Your task to perform on an android device: add a contact in the contacts app Image 0: 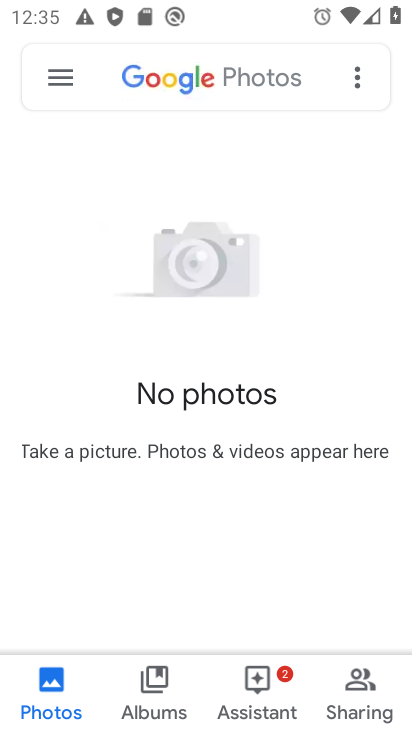
Step 0: press home button
Your task to perform on an android device: add a contact in the contacts app Image 1: 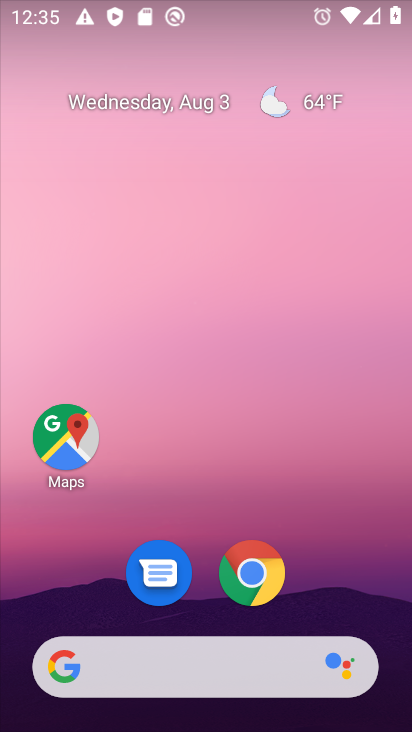
Step 1: drag from (216, 621) to (241, 183)
Your task to perform on an android device: add a contact in the contacts app Image 2: 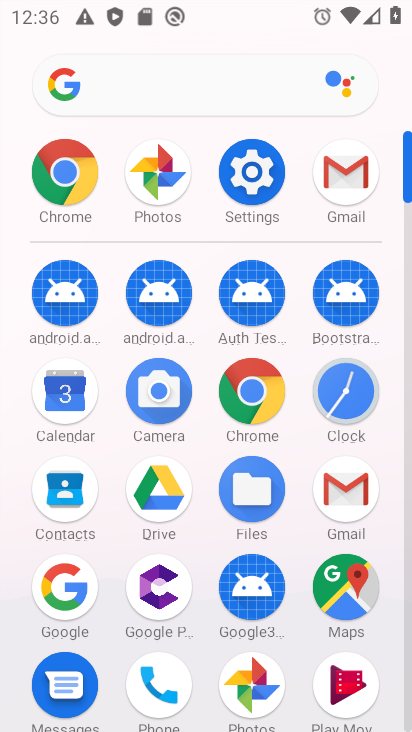
Step 2: drag from (223, 525) to (223, 283)
Your task to perform on an android device: add a contact in the contacts app Image 3: 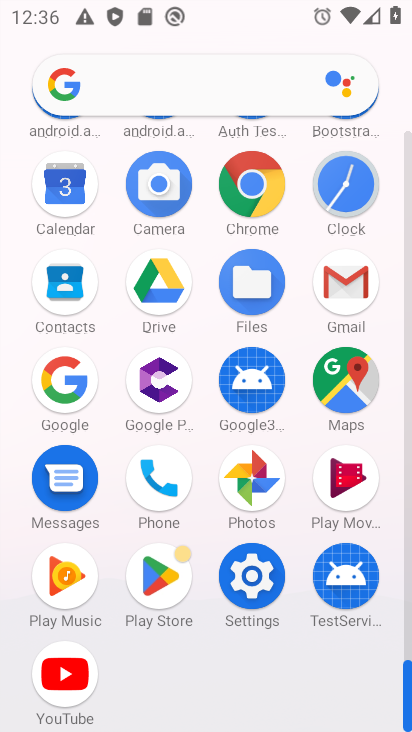
Step 3: click (70, 294)
Your task to perform on an android device: add a contact in the contacts app Image 4: 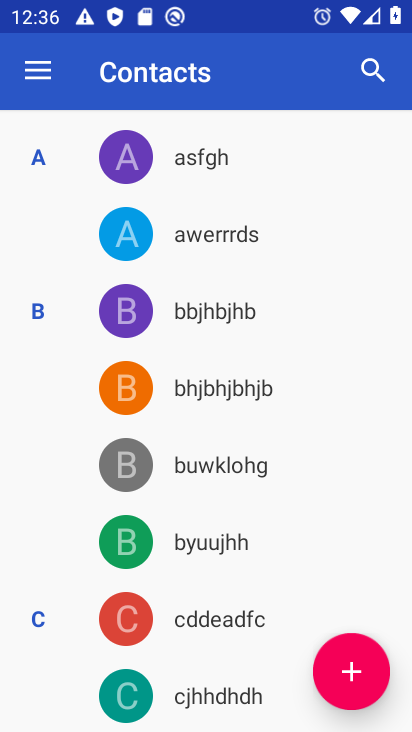
Step 4: click (347, 678)
Your task to perform on an android device: add a contact in the contacts app Image 5: 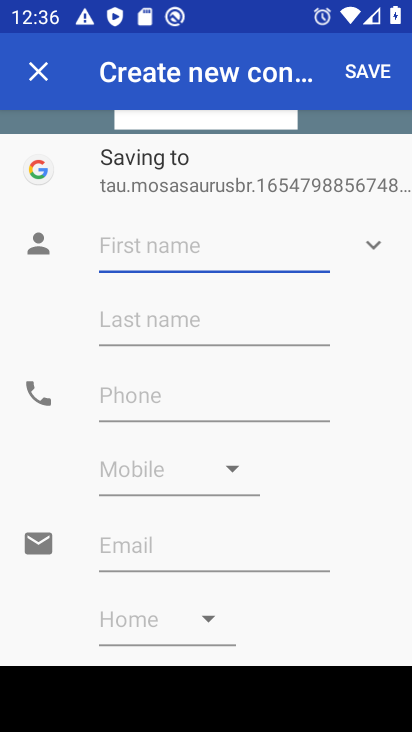
Step 5: type "fdfdhguff"
Your task to perform on an android device: add a contact in the contacts app Image 6: 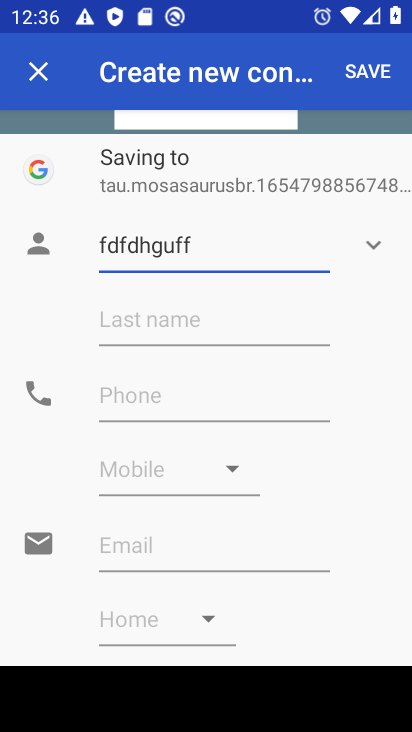
Step 6: click (183, 414)
Your task to perform on an android device: add a contact in the contacts app Image 7: 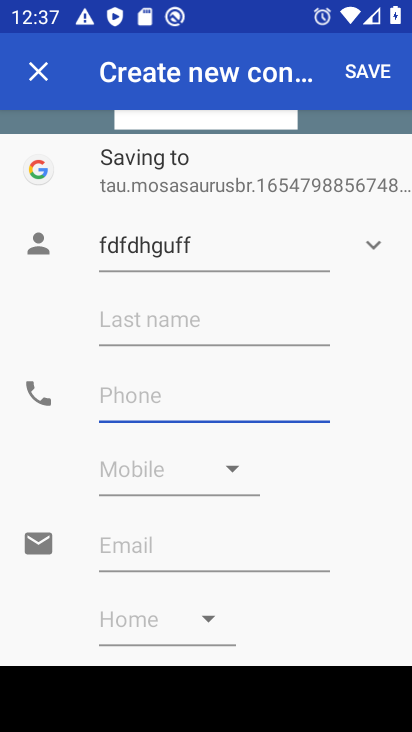
Step 7: type "56570987556"
Your task to perform on an android device: add a contact in the contacts app Image 8: 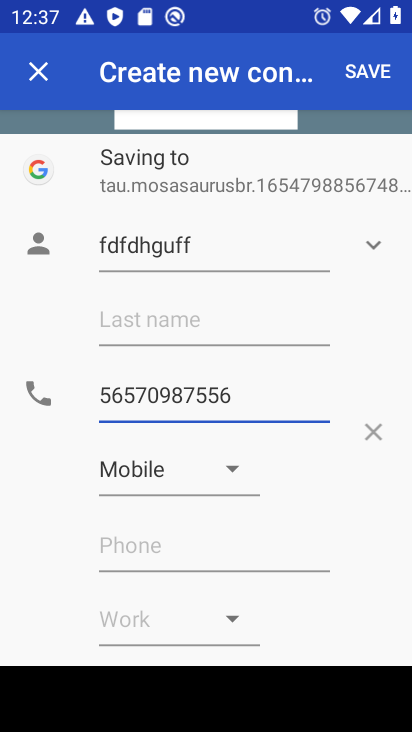
Step 8: click (364, 73)
Your task to perform on an android device: add a contact in the contacts app Image 9: 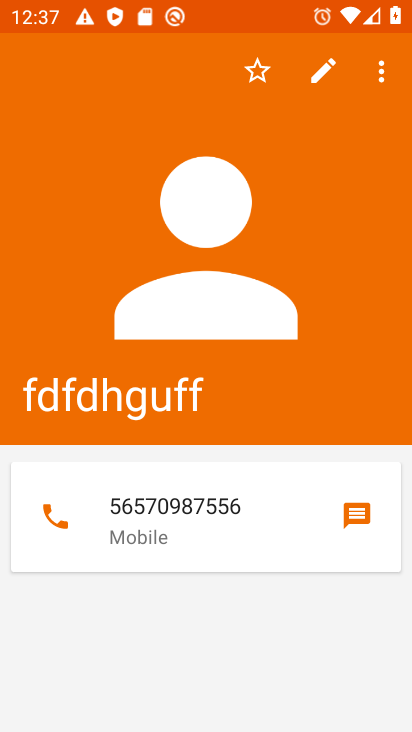
Step 9: task complete